Your task to perform on an android device: Go to network settings Image 0: 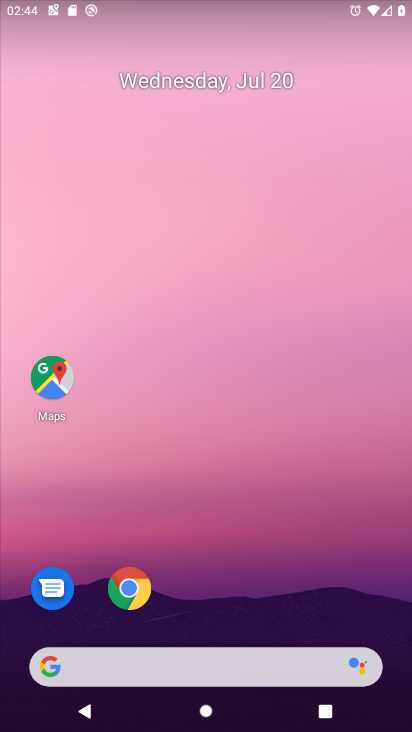
Step 0: drag from (295, 606) to (317, 150)
Your task to perform on an android device: Go to network settings Image 1: 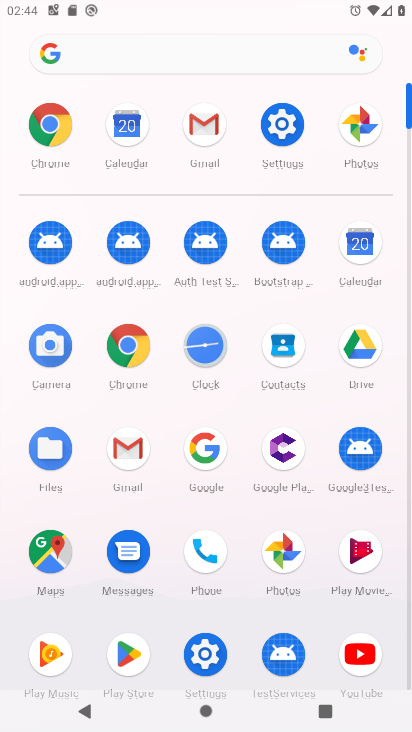
Step 1: click (274, 119)
Your task to perform on an android device: Go to network settings Image 2: 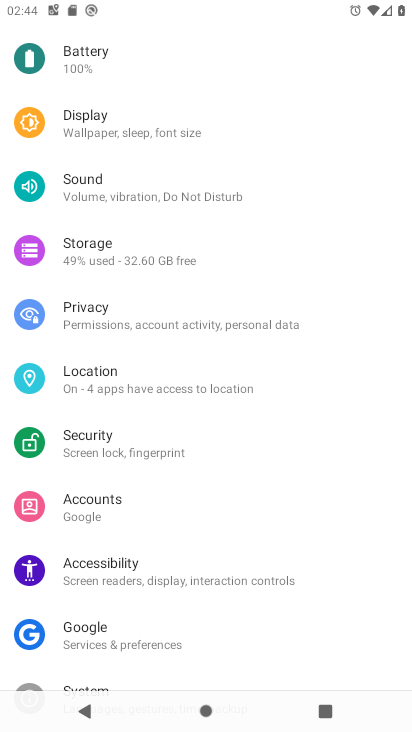
Step 2: drag from (154, 168) to (187, 576)
Your task to perform on an android device: Go to network settings Image 3: 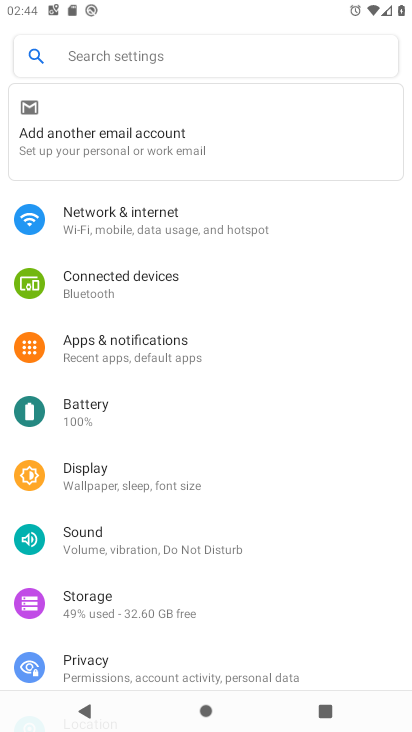
Step 3: click (147, 221)
Your task to perform on an android device: Go to network settings Image 4: 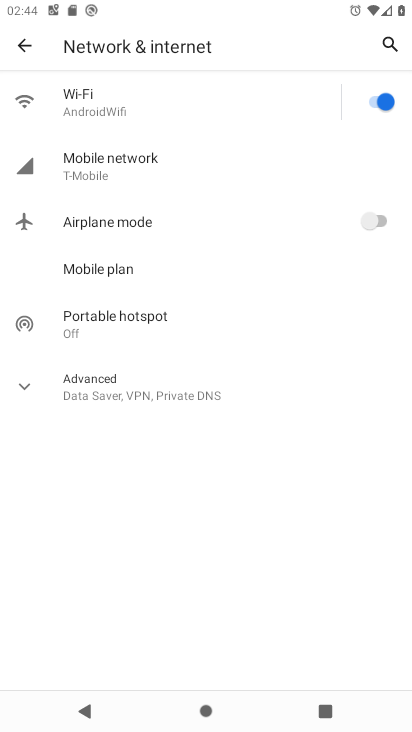
Step 4: task complete